Your task to perform on an android device: turn off improve location accuracy Image 0: 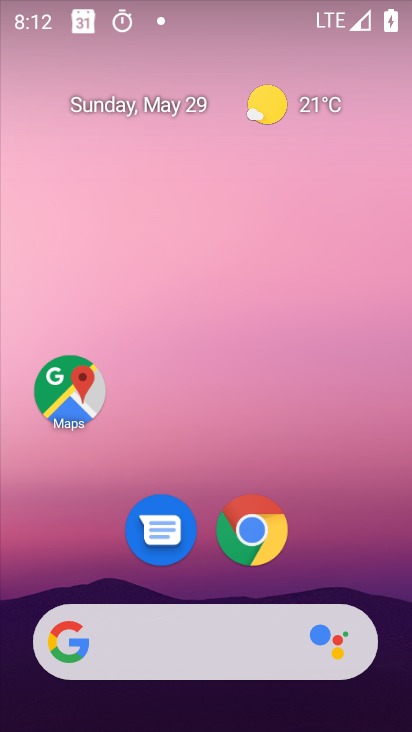
Step 0: drag from (241, 648) to (377, 185)
Your task to perform on an android device: turn off improve location accuracy Image 1: 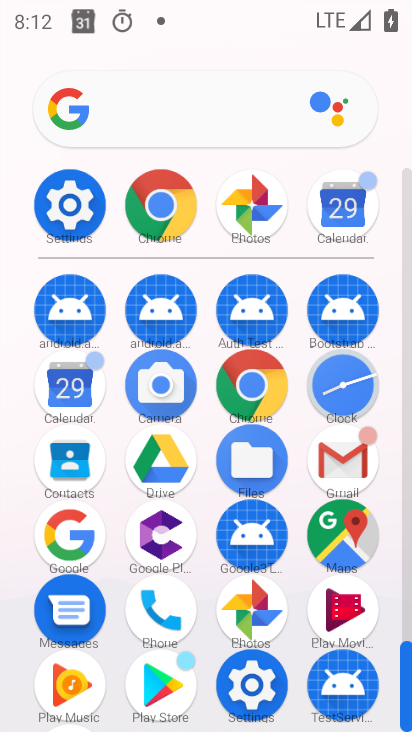
Step 1: click (87, 214)
Your task to perform on an android device: turn off improve location accuracy Image 2: 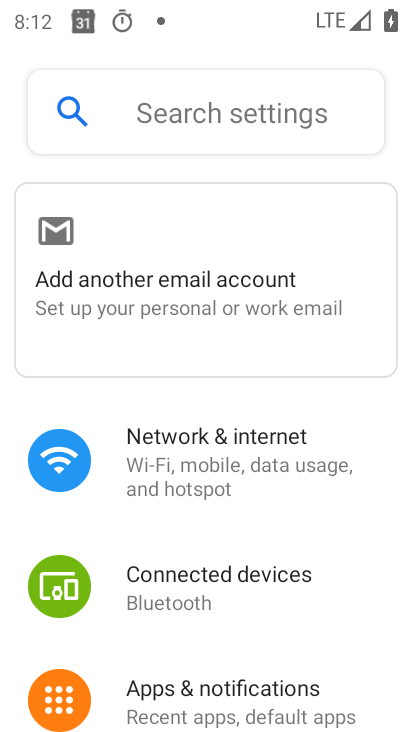
Step 2: click (159, 125)
Your task to perform on an android device: turn off improve location accuracy Image 3: 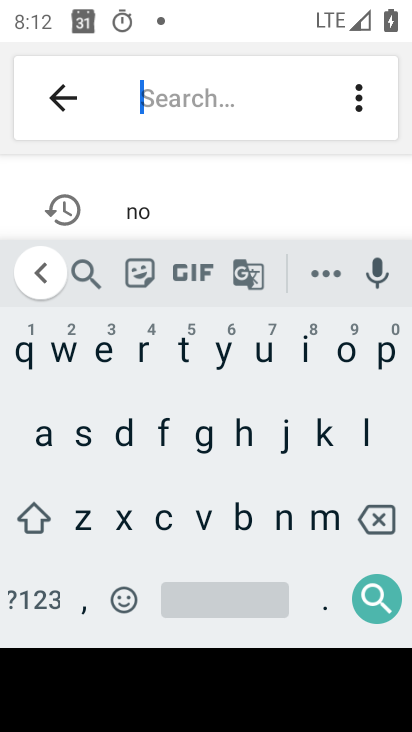
Step 3: click (374, 442)
Your task to perform on an android device: turn off improve location accuracy Image 4: 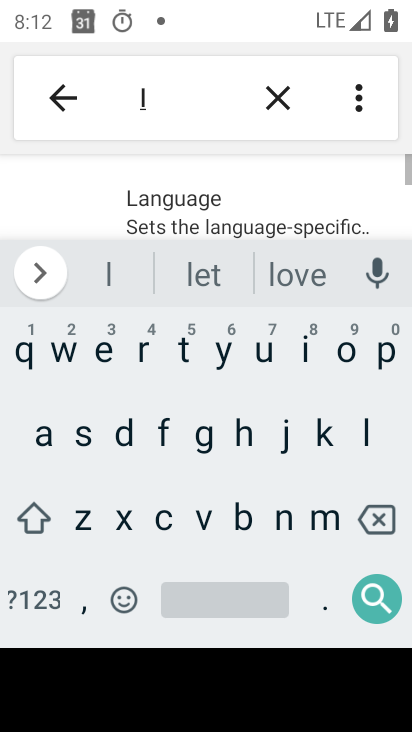
Step 4: click (341, 343)
Your task to perform on an android device: turn off improve location accuracy Image 5: 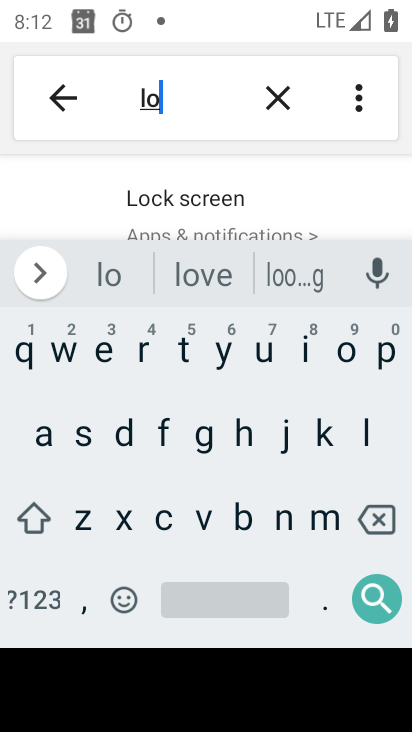
Step 5: press back button
Your task to perform on an android device: turn off improve location accuracy Image 6: 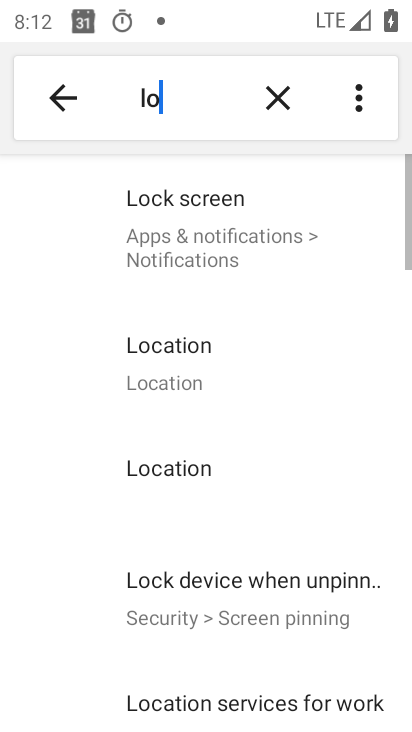
Step 6: click (166, 356)
Your task to perform on an android device: turn off improve location accuracy Image 7: 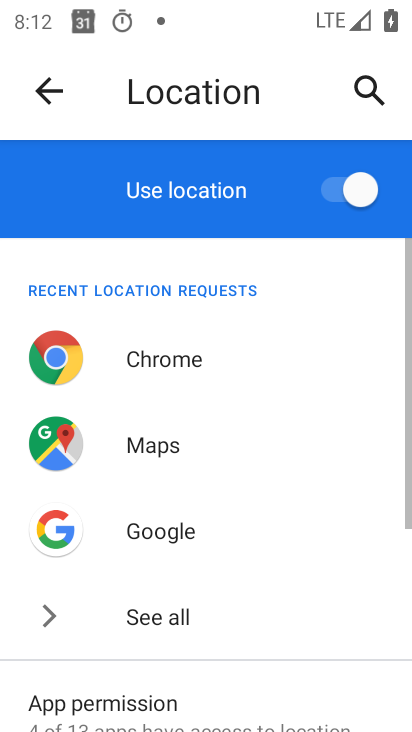
Step 7: click (338, 187)
Your task to perform on an android device: turn off improve location accuracy Image 8: 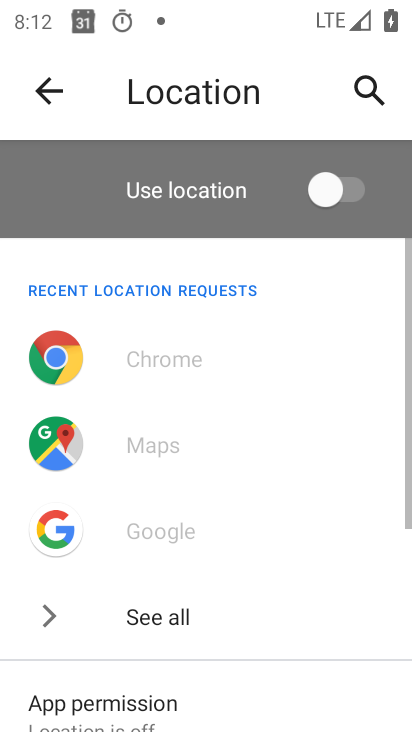
Step 8: click (347, 199)
Your task to perform on an android device: turn off improve location accuracy Image 9: 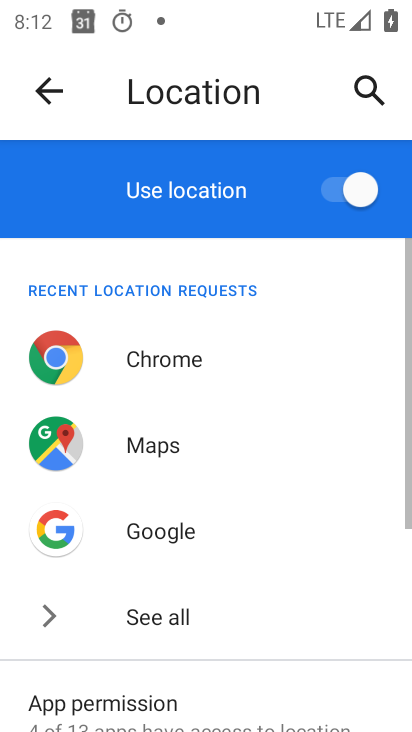
Step 9: drag from (229, 518) to (336, 307)
Your task to perform on an android device: turn off improve location accuracy Image 10: 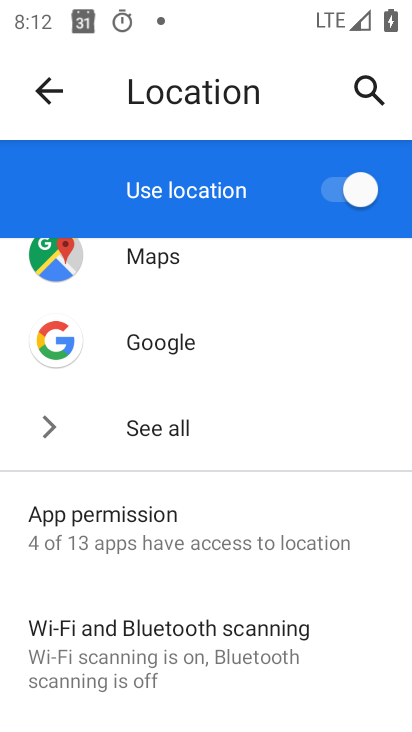
Step 10: drag from (192, 646) to (245, 298)
Your task to perform on an android device: turn off improve location accuracy Image 11: 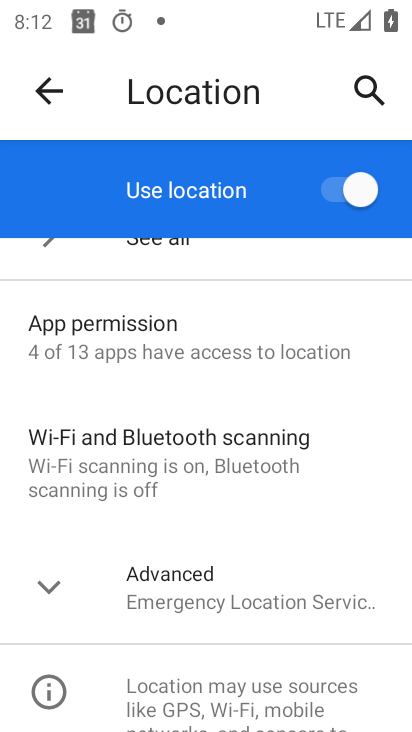
Step 11: click (58, 590)
Your task to perform on an android device: turn off improve location accuracy Image 12: 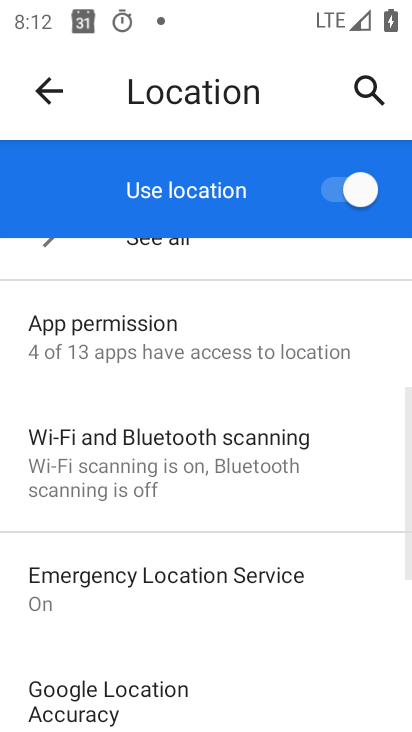
Step 12: click (100, 688)
Your task to perform on an android device: turn off improve location accuracy Image 13: 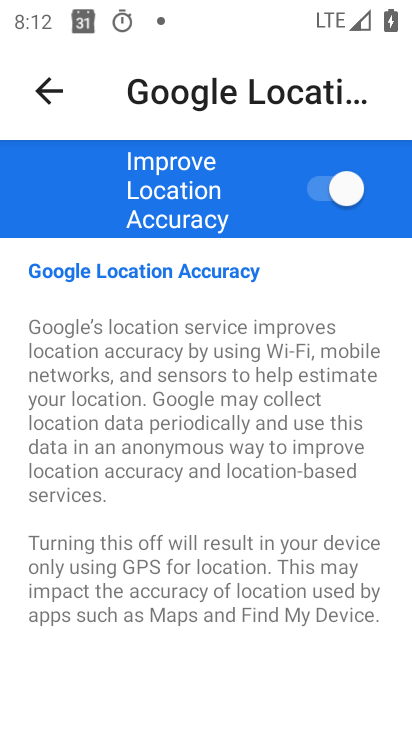
Step 13: click (325, 208)
Your task to perform on an android device: turn off improve location accuracy Image 14: 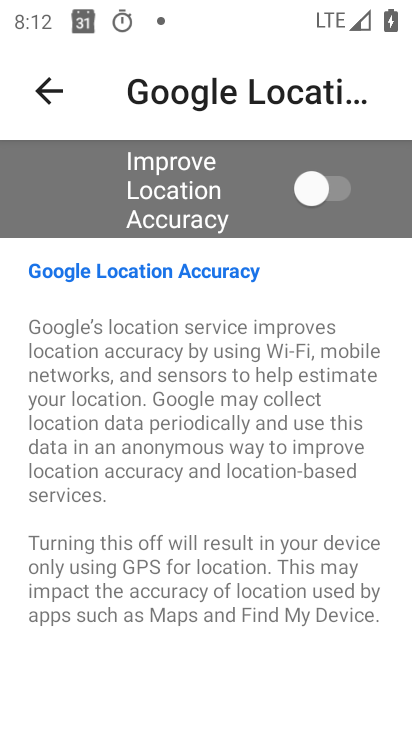
Step 14: task complete